Your task to perform on an android device: Open Google Maps Image 0: 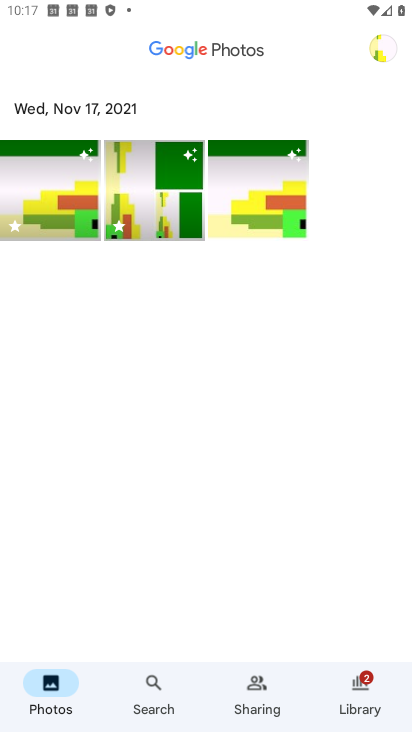
Step 0: press home button
Your task to perform on an android device: Open Google Maps Image 1: 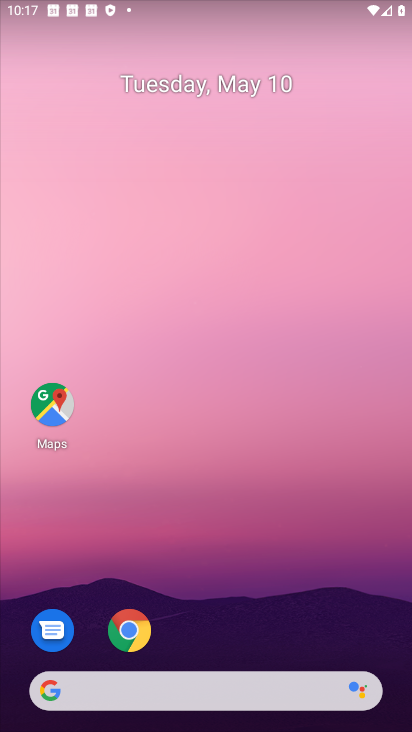
Step 1: click (63, 412)
Your task to perform on an android device: Open Google Maps Image 2: 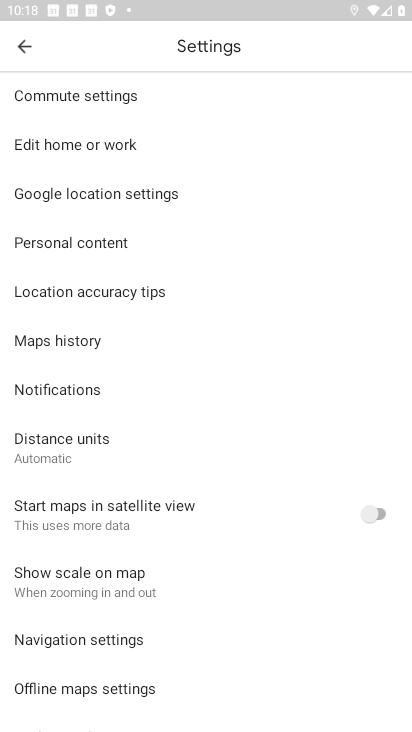
Step 2: click (27, 46)
Your task to perform on an android device: Open Google Maps Image 3: 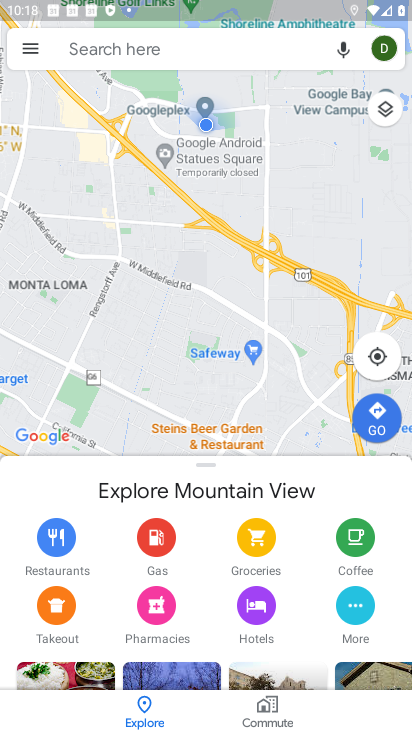
Step 3: task complete